Your task to perform on an android device: Show the shopping cart on bestbuy. Add bose soundlink mini to the cart on bestbuy, then select checkout. Image 0: 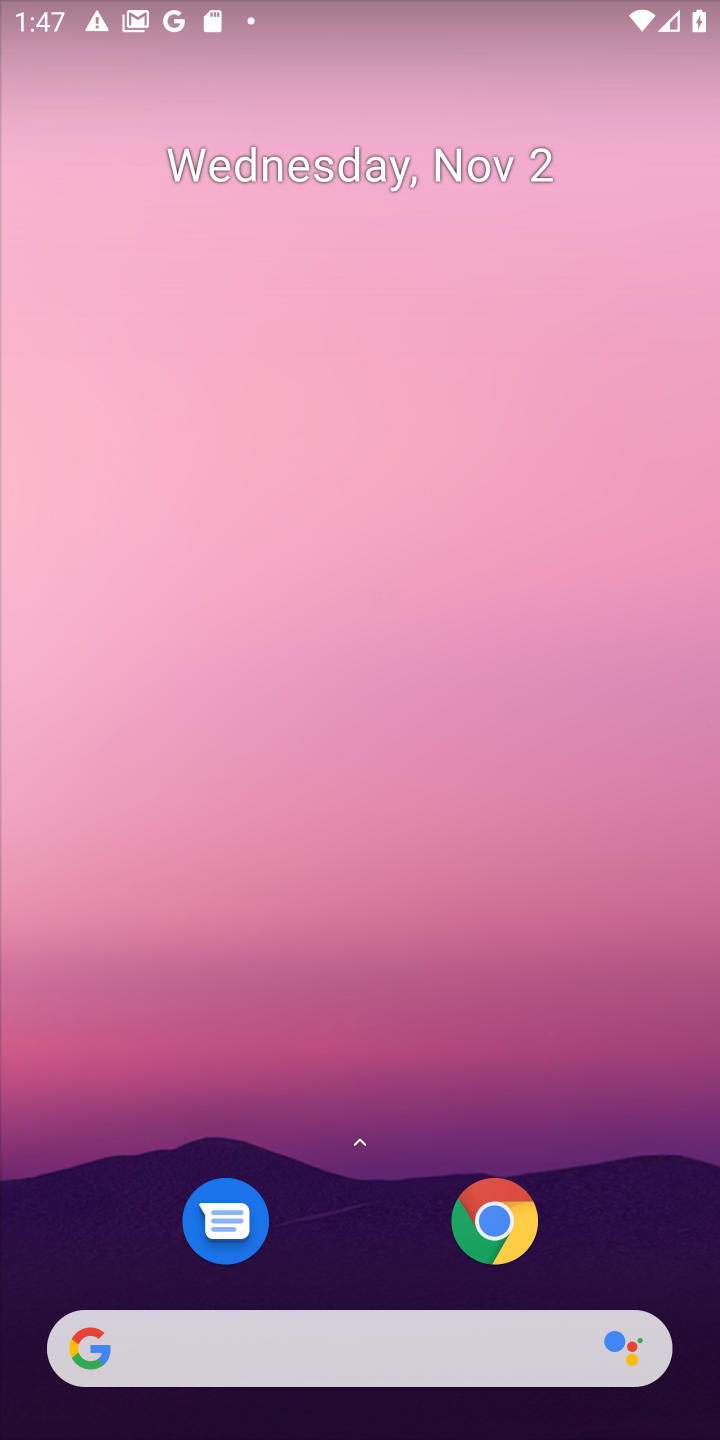
Step 0: press home button
Your task to perform on an android device: Show the shopping cart on bestbuy. Add bose soundlink mini to the cart on bestbuy, then select checkout. Image 1: 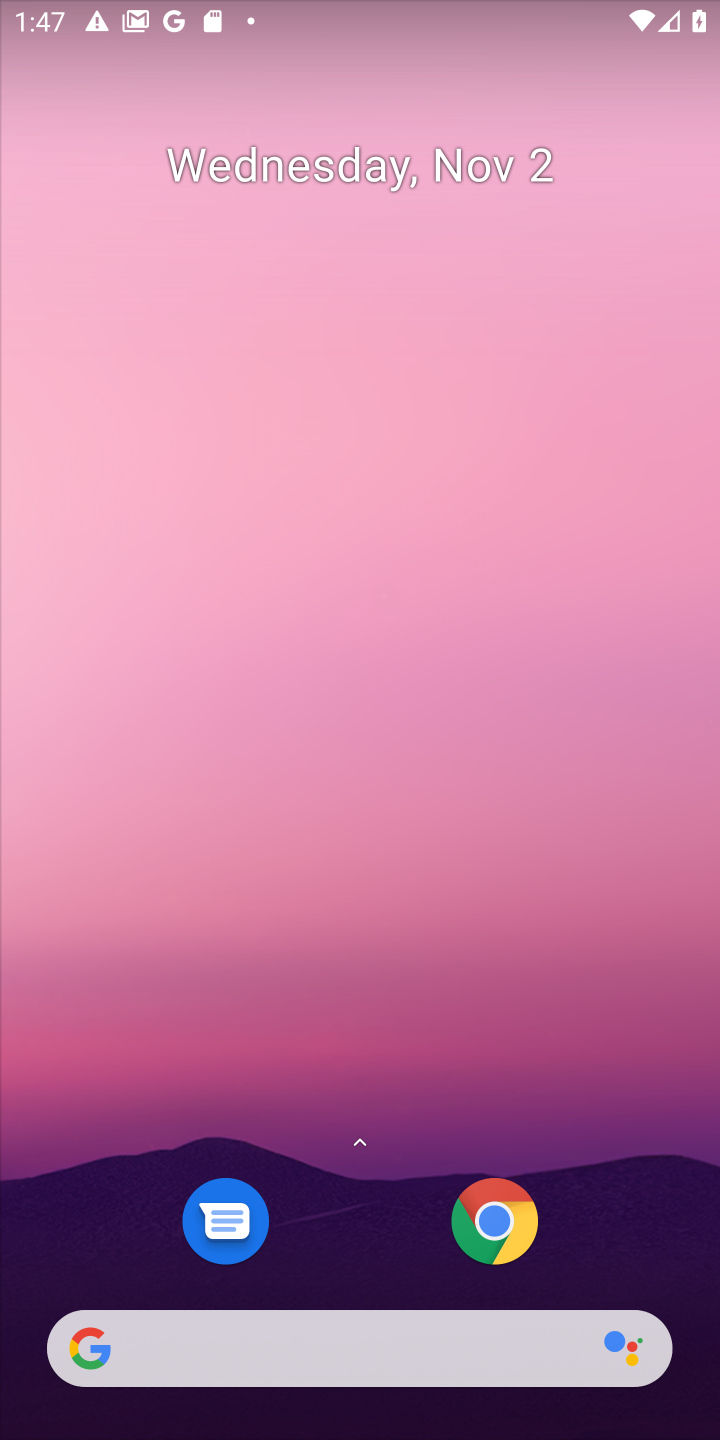
Step 1: click (235, 1330)
Your task to perform on an android device: Show the shopping cart on bestbuy. Add bose soundlink mini to the cart on bestbuy, then select checkout. Image 2: 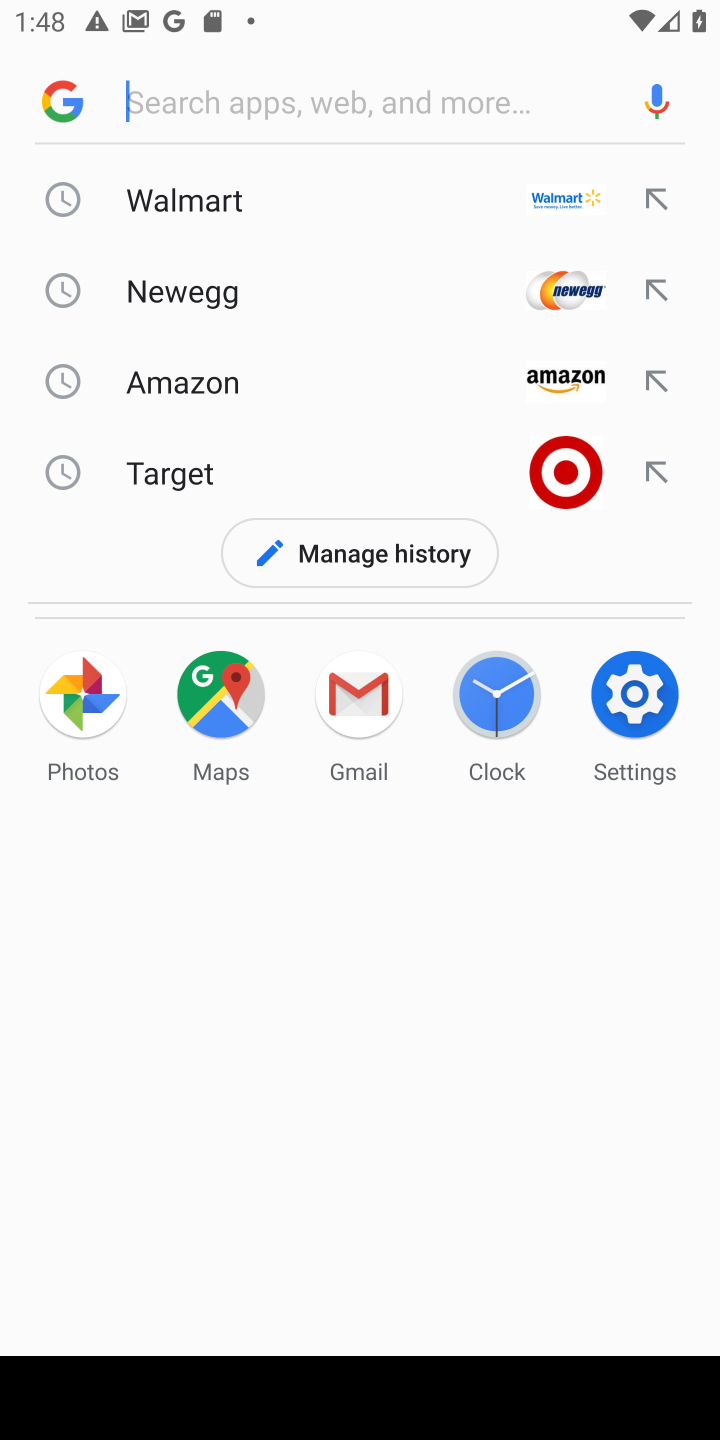
Step 2: type "bestbuy"
Your task to perform on an android device: Show the shopping cart on bestbuy. Add bose soundlink mini to the cart on bestbuy, then select checkout. Image 3: 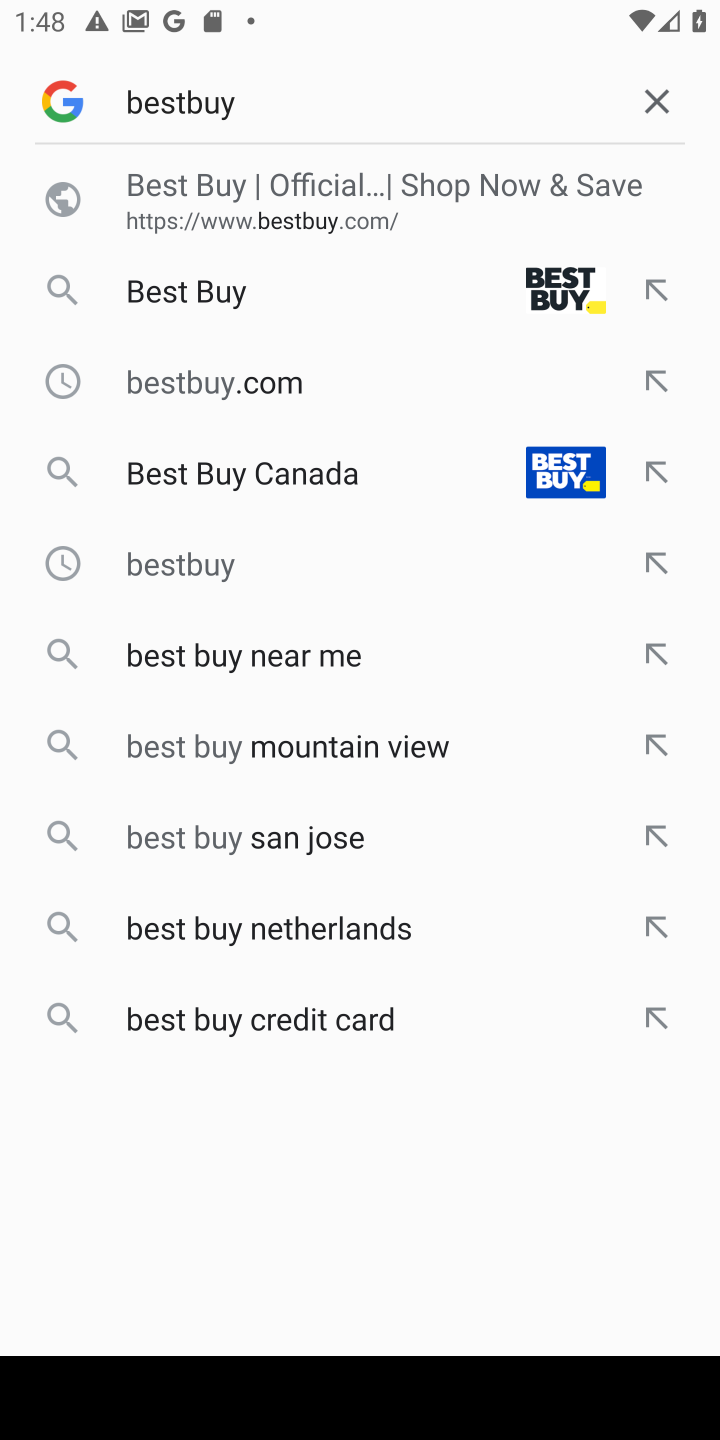
Step 3: click (355, 233)
Your task to perform on an android device: Show the shopping cart on bestbuy. Add bose soundlink mini to the cart on bestbuy, then select checkout. Image 4: 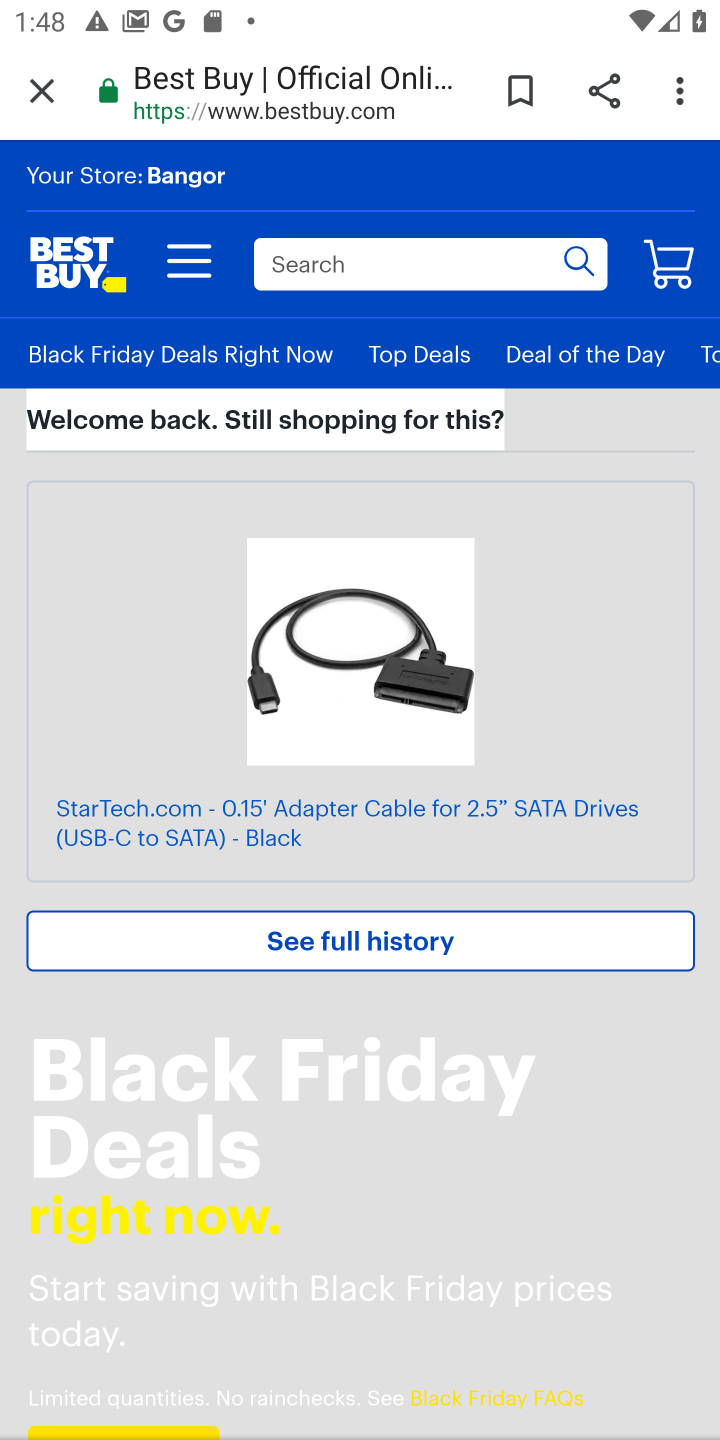
Step 4: click (344, 251)
Your task to perform on an android device: Show the shopping cart on bestbuy. Add bose soundlink mini to the cart on bestbuy, then select checkout. Image 5: 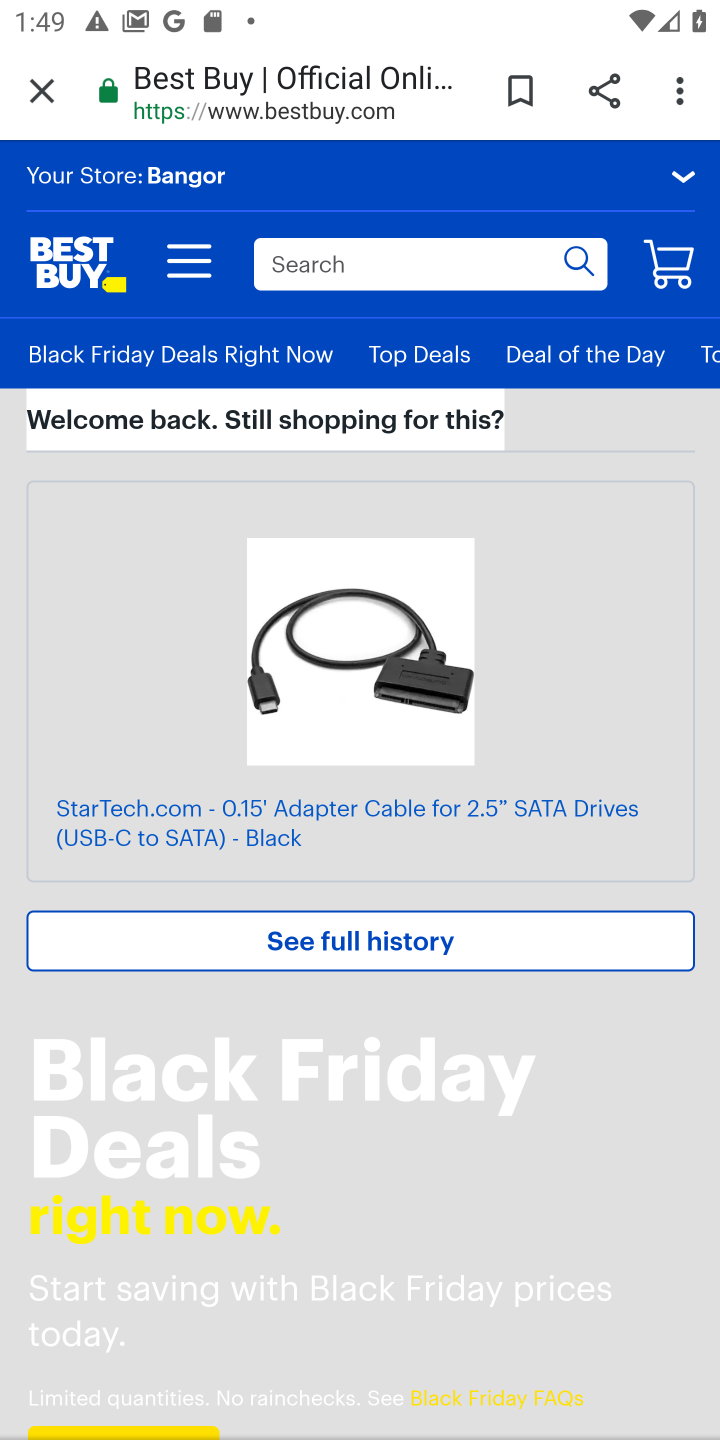
Step 5: type "sounlink"
Your task to perform on an android device: Show the shopping cart on bestbuy. Add bose soundlink mini to the cart on bestbuy, then select checkout. Image 6: 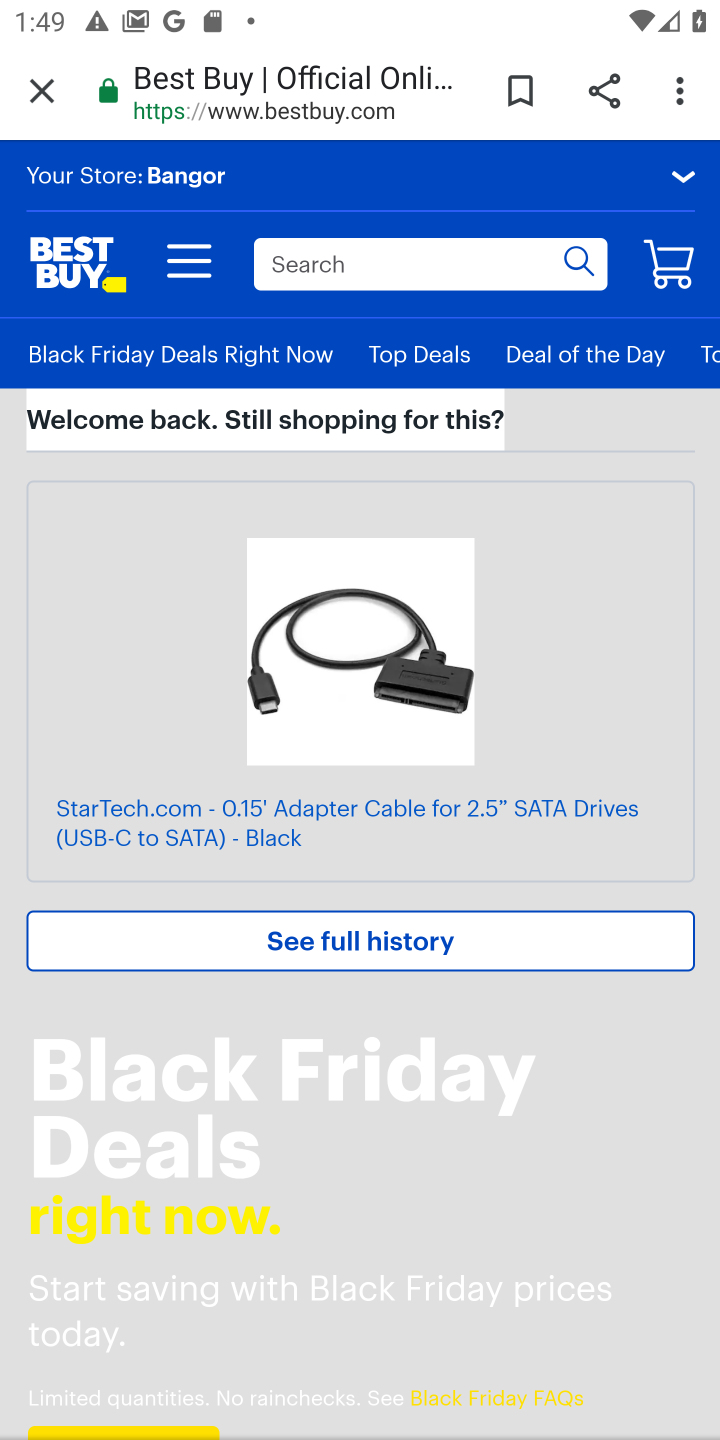
Step 6: task complete